Your task to perform on an android device: Open network settings Image 0: 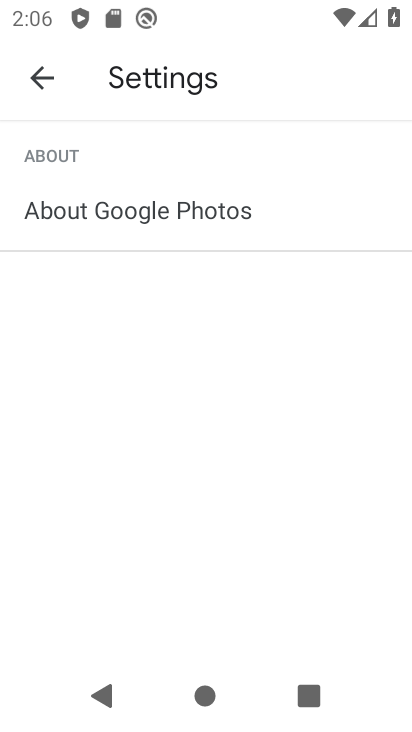
Step 0: press home button
Your task to perform on an android device: Open network settings Image 1: 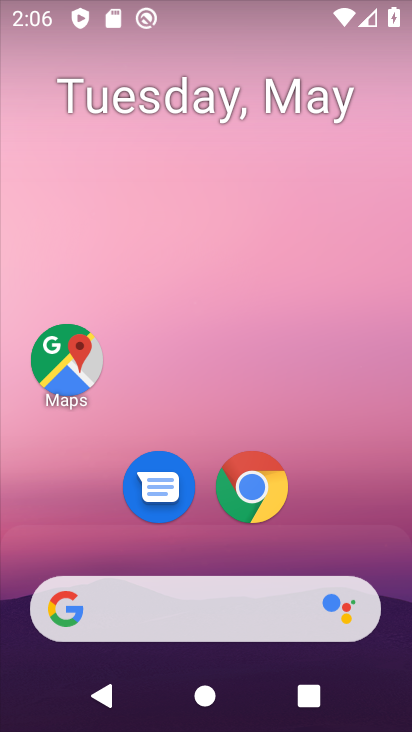
Step 1: drag from (168, 600) to (398, 193)
Your task to perform on an android device: Open network settings Image 2: 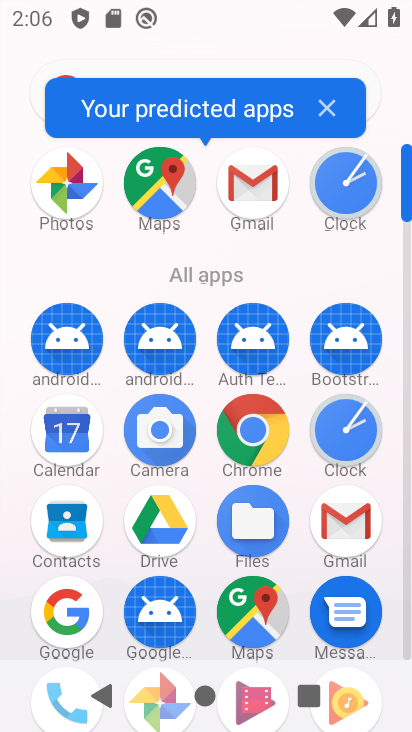
Step 2: drag from (181, 666) to (269, 426)
Your task to perform on an android device: Open network settings Image 3: 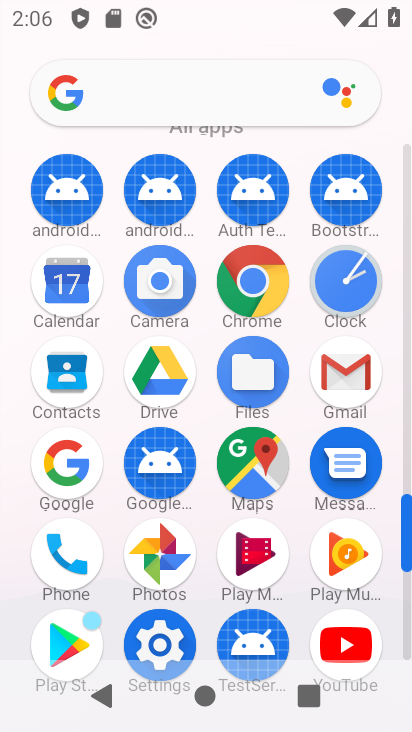
Step 3: click (168, 641)
Your task to perform on an android device: Open network settings Image 4: 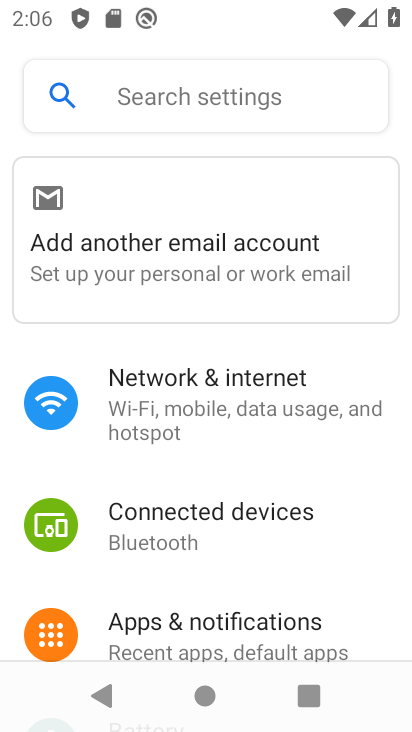
Step 4: click (252, 425)
Your task to perform on an android device: Open network settings Image 5: 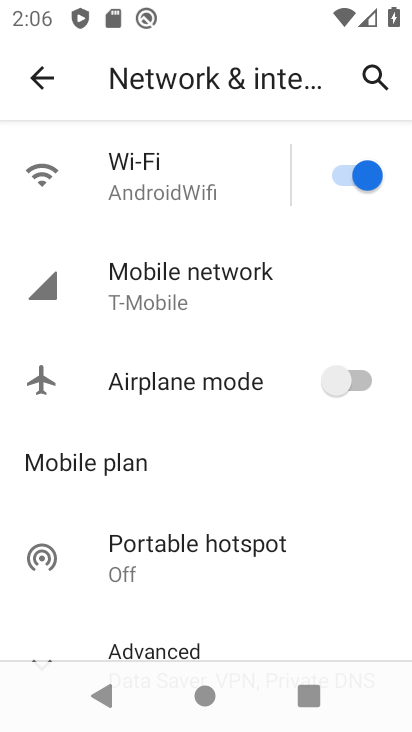
Step 5: click (251, 305)
Your task to perform on an android device: Open network settings Image 6: 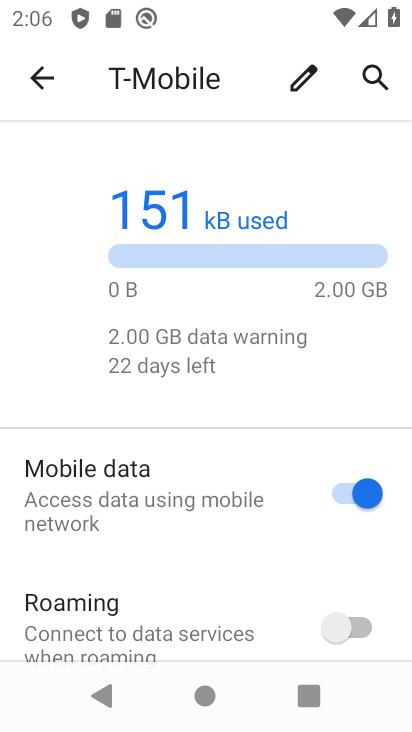
Step 6: task complete